Your task to perform on an android device: Go to Yahoo.com Image 0: 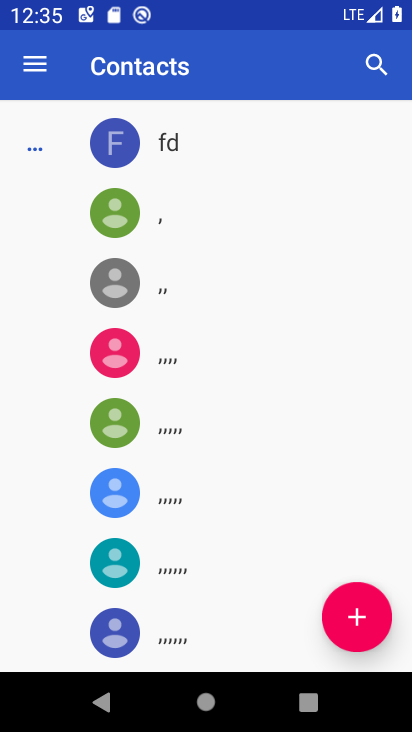
Step 0: press home button
Your task to perform on an android device: Go to Yahoo.com Image 1: 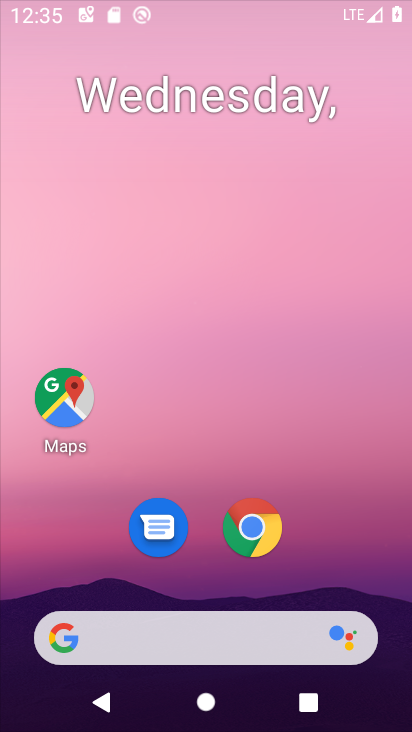
Step 1: drag from (244, 648) to (288, 43)
Your task to perform on an android device: Go to Yahoo.com Image 2: 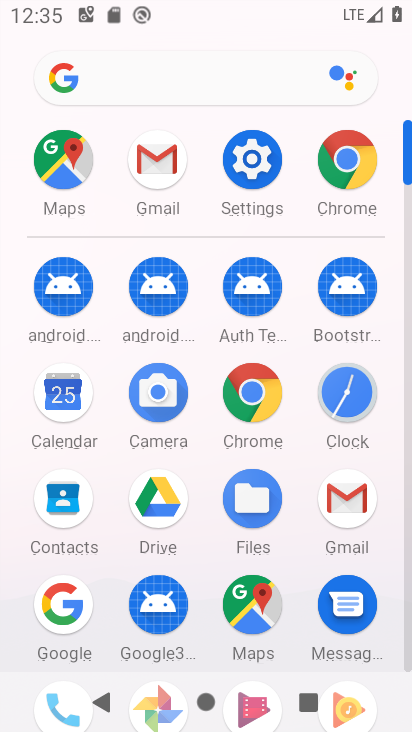
Step 2: click (263, 392)
Your task to perform on an android device: Go to Yahoo.com Image 3: 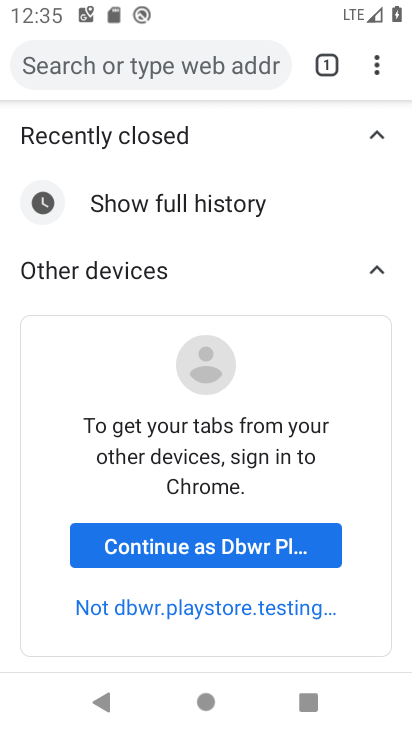
Step 3: click (207, 66)
Your task to perform on an android device: Go to Yahoo.com Image 4: 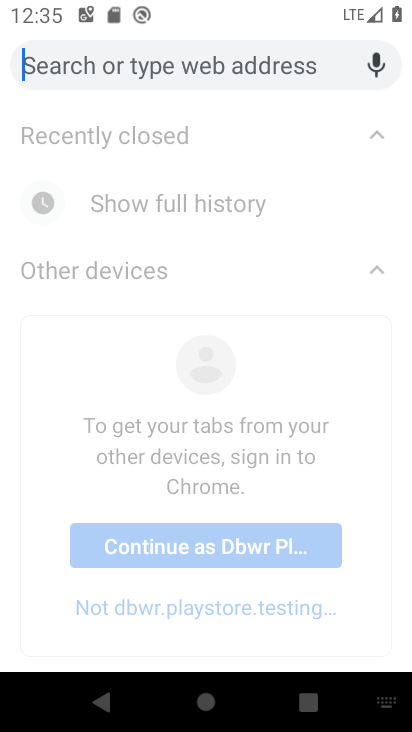
Step 4: type "yahoo.com"
Your task to perform on an android device: Go to Yahoo.com Image 5: 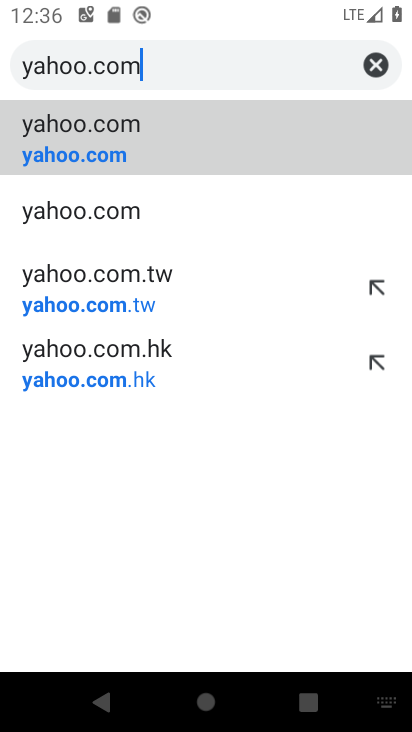
Step 5: click (195, 156)
Your task to perform on an android device: Go to Yahoo.com Image 6: 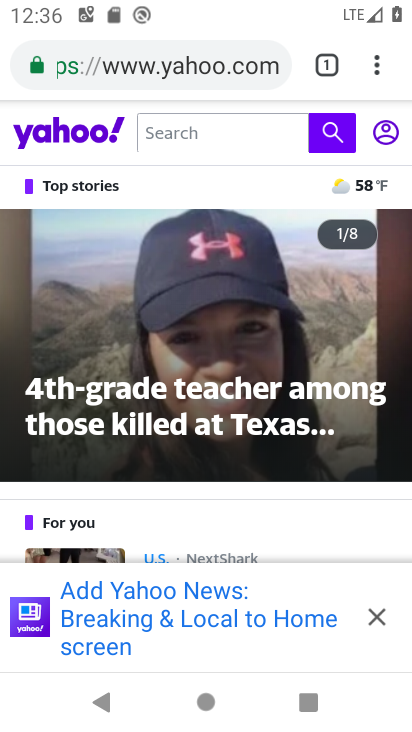
Step 6: task complete